Your task to perform on an android device: Open internet settings Image 0: 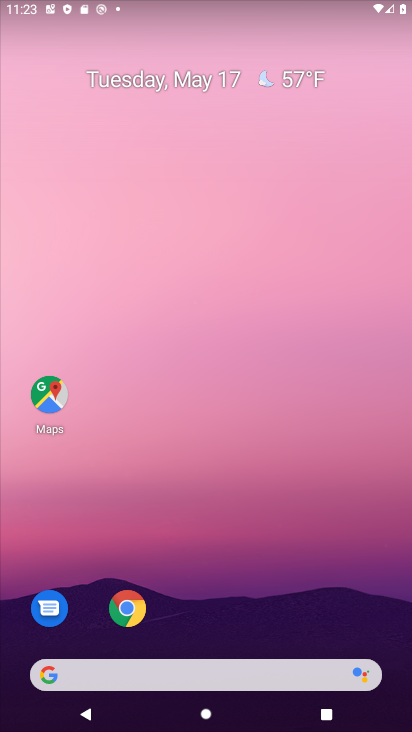
Step 0: drag from (215, 605) to (307, 115)
Your task to perform on an android device: Open internet settings Image 1: 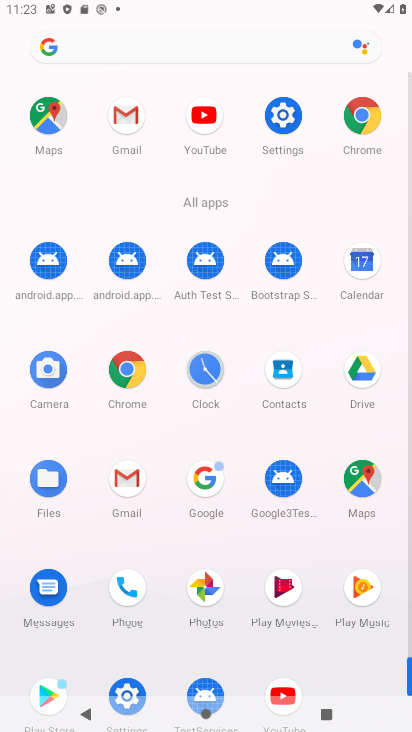
Step 1: click (285, 127)
Your task to perform on an android device: Open internet settings Image 2: 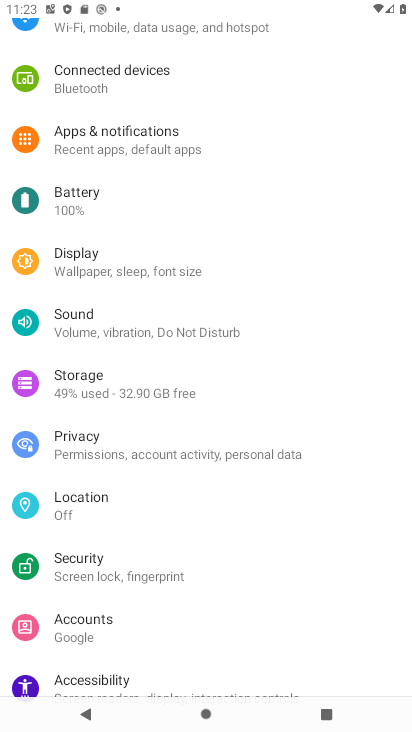
Step 2: drag from (159, 187) to (137, 436)
Your task to perform on an android device: Open internet settings Image 3: 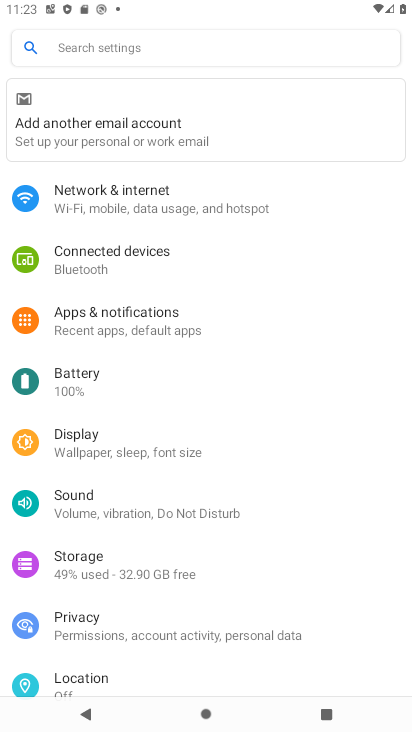
Step 3: click (113, 200)
Your task to perform on an android device: Open internet settings Image 4: 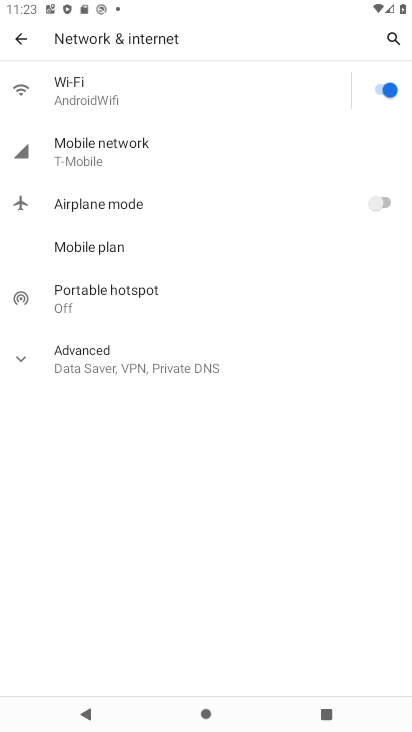
Step 4: task complete